Your task to perform on an android device: find photos in the google photos app Image 0: 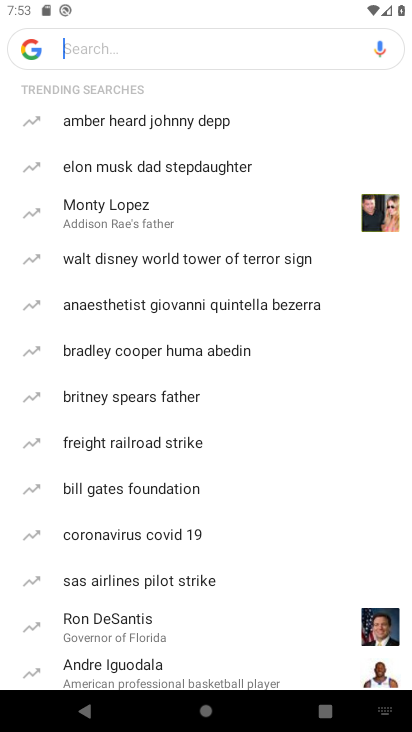
Step 0: press home button
Your task to perform on an android device: find photos in the google photos app Image 1: 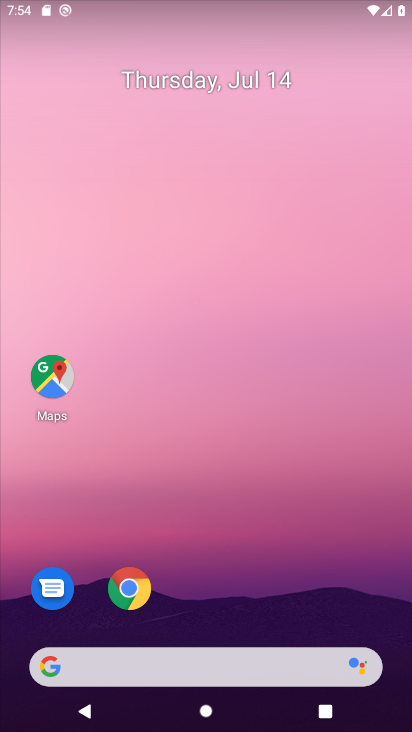
Step 1: drag from (358, 565) to (360, 34)
Your task to perform on an android device: find photos in the google photos app Image 2: 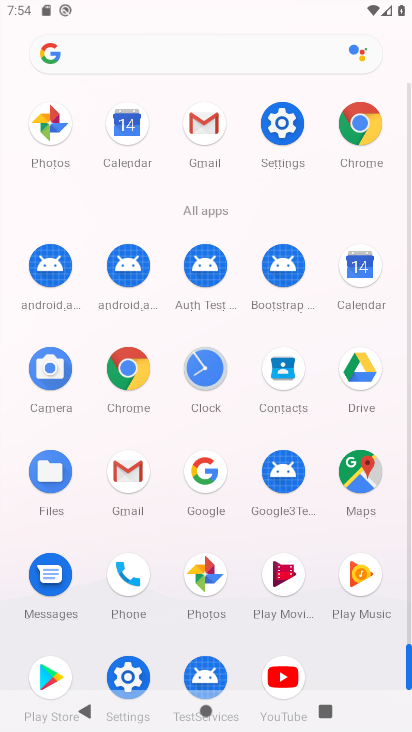
Step 2: click (202, 571)
Your task to perform on an android device: find photos in the google photos app Image 3: 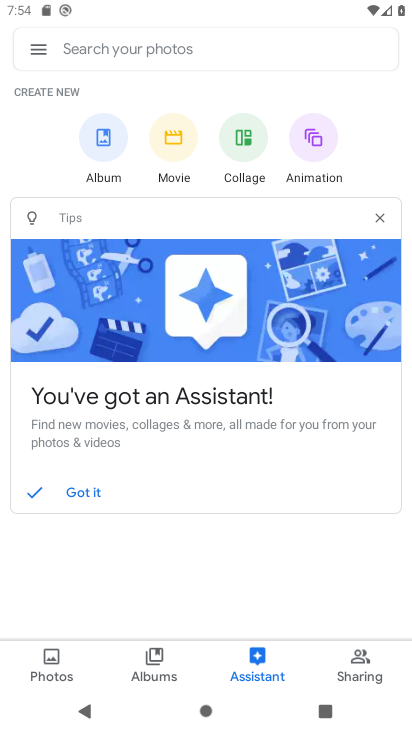
Step 3: click (43, 663)
Your task to perform on an android device: find photos in the google photos app Image 4: 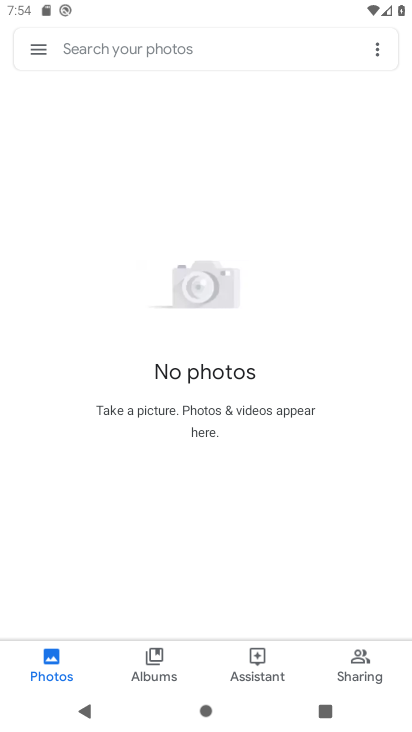
Step 4: task complete